Your task to perform on an android device: Open internet settings Image 0: 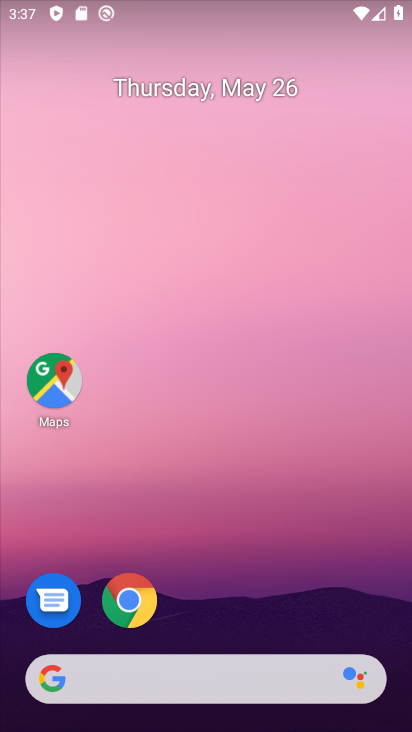
Step 0: drag from (218, 620) to (281, 148)
Your task to perform on an android device: Open internet settings Image 1: 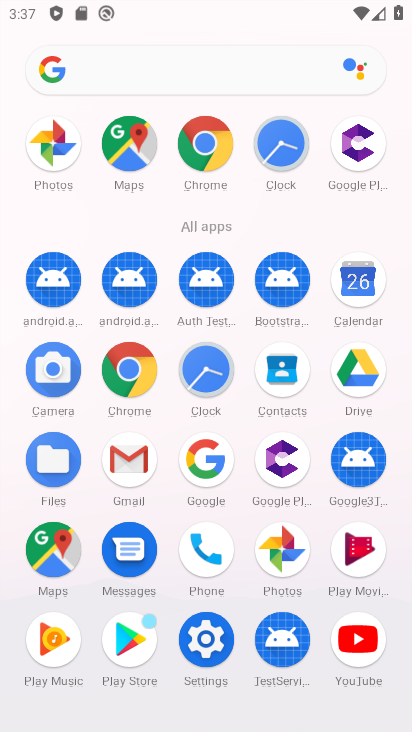
Step 1: click (218, 636)
Your task to perform on an android device: Open internet settings Image 2: 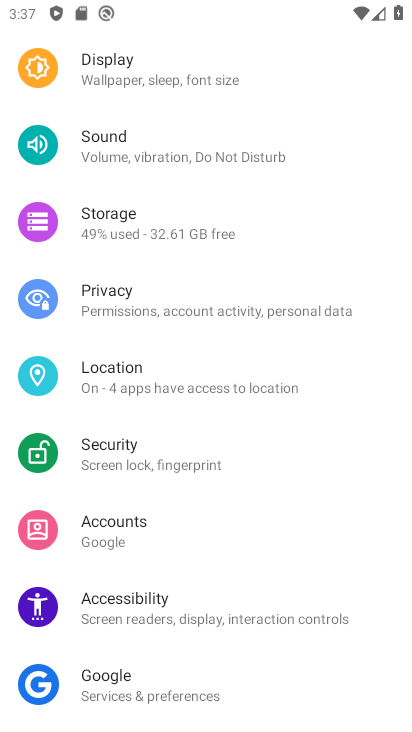
Step 2: drag from (245, 128) to (246, 488)
Your task to perform on an android device: Open internet settings Image 3: 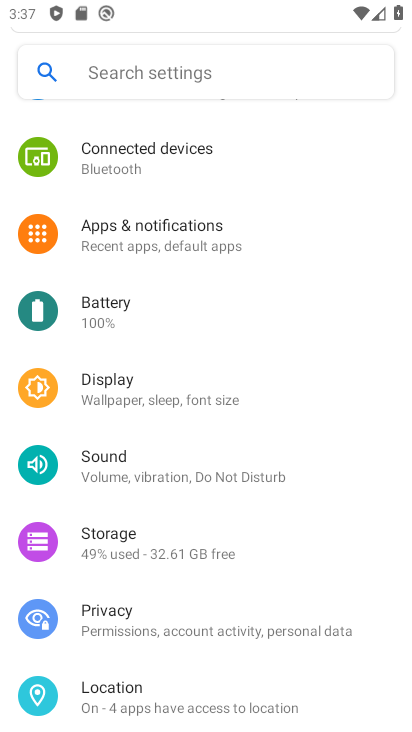
Step 3: drag from (165, 169) to (150, 548)
Your task to perform on an android device: Open internet settings Image 4: 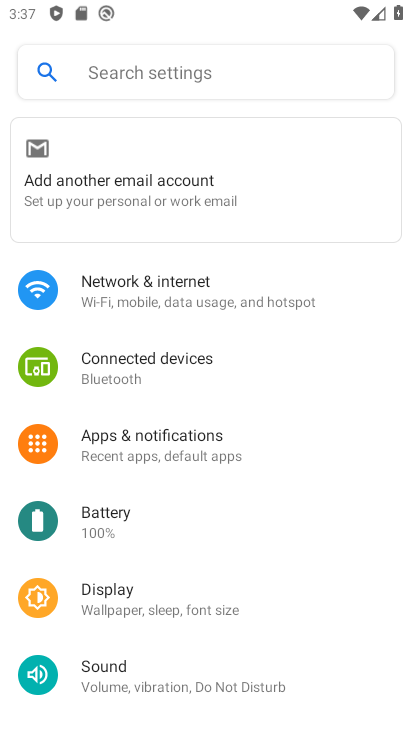
Step 4: click (140, 291)
Your task to perform on an android device: Open internet settings Image 5: 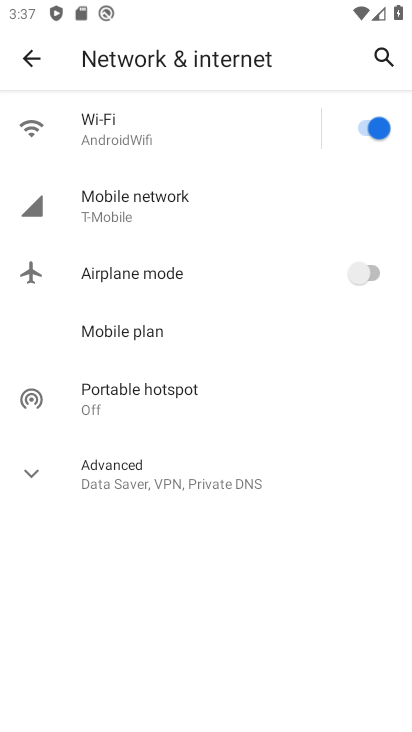
Step 5: task complete